Your task to perform on an android device: Search for sushi restaurants on Maps Image 0: 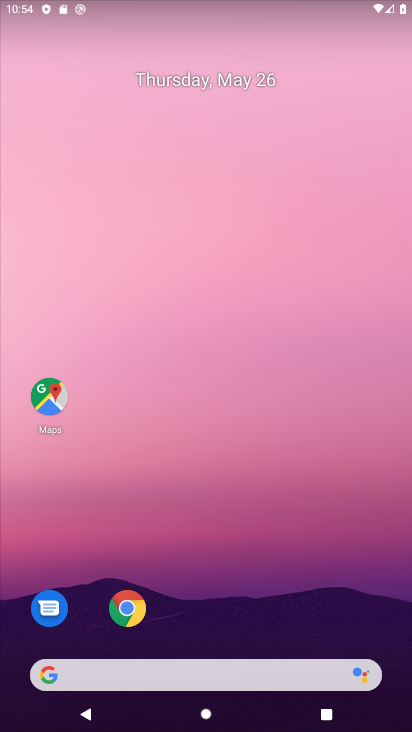
Step 0: click (51, 404)
Your task to perform on an android device: Search for sushi restaurants on Maps Image 1: 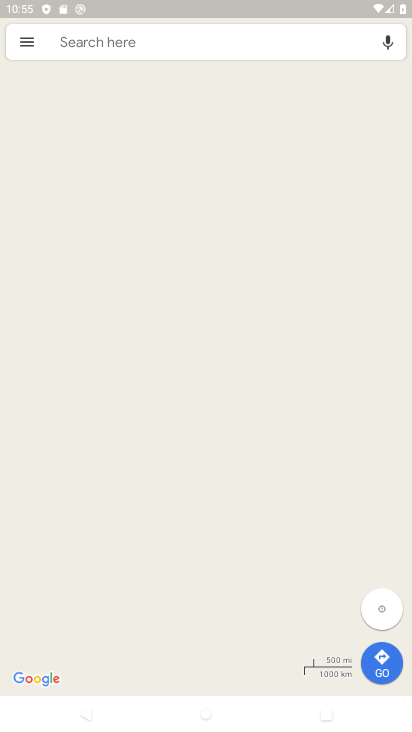
Step 1: click (110, 42)
Your task to perform on an android device: Search for sushi restaurants on Maps Image 2: 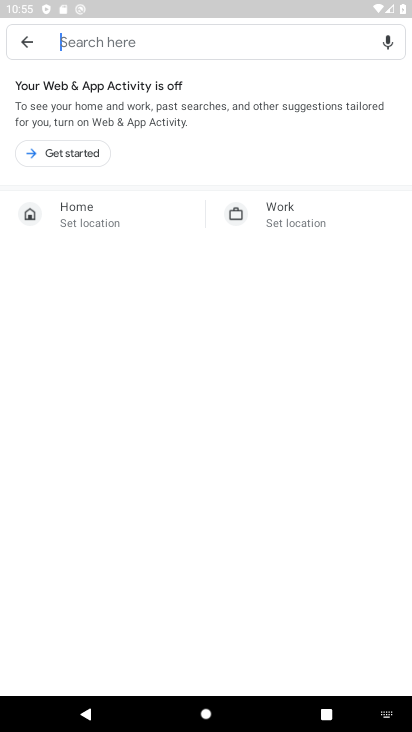
Step 2: click (110, 42)
Your task to perform on an android device: Search for sushi restaurants on Maps Image 3: 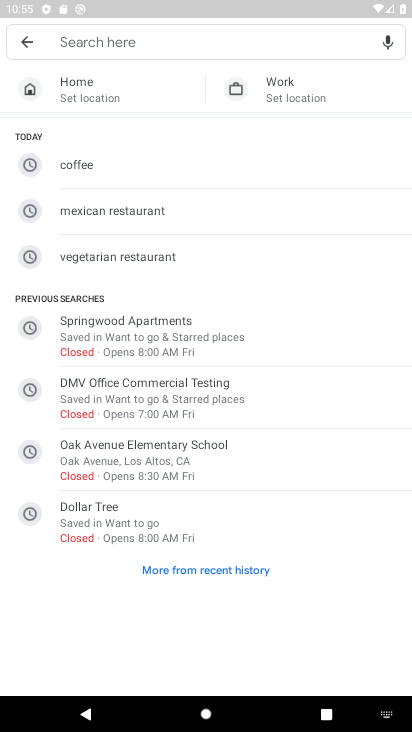
Step 3: type "sushi restaurants"
Your task to perform on an android device: Search for sushi restaurants on Maps Image 4: 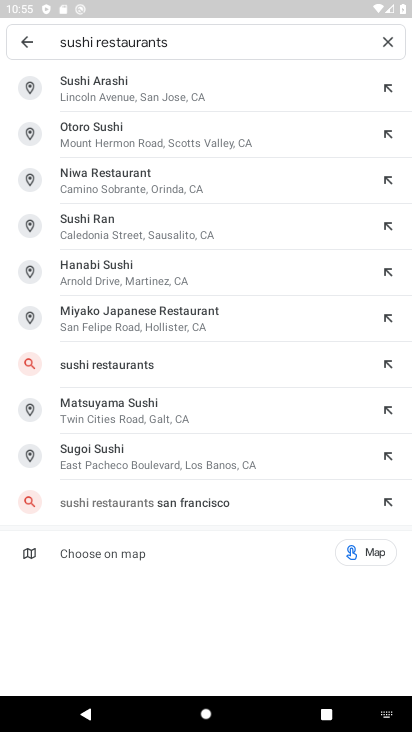
Step 4: click (143, 364)
Your task to perform on an android device: Search for sushi restaurants on Maps Image 5: 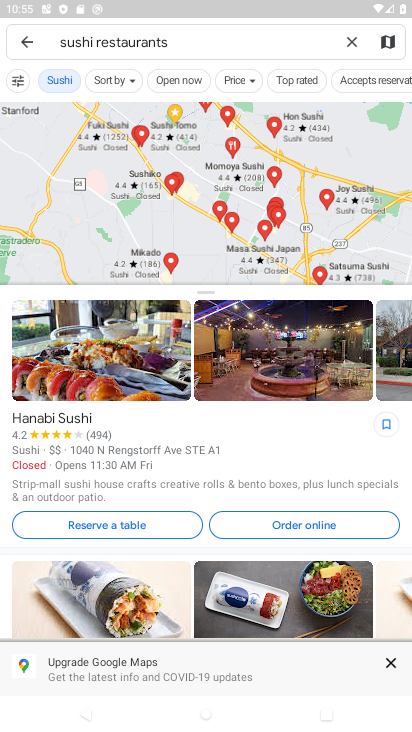
Step 5: task complete